Your task to perform on an android device: choose inbox layout in the gmail app Image 0: 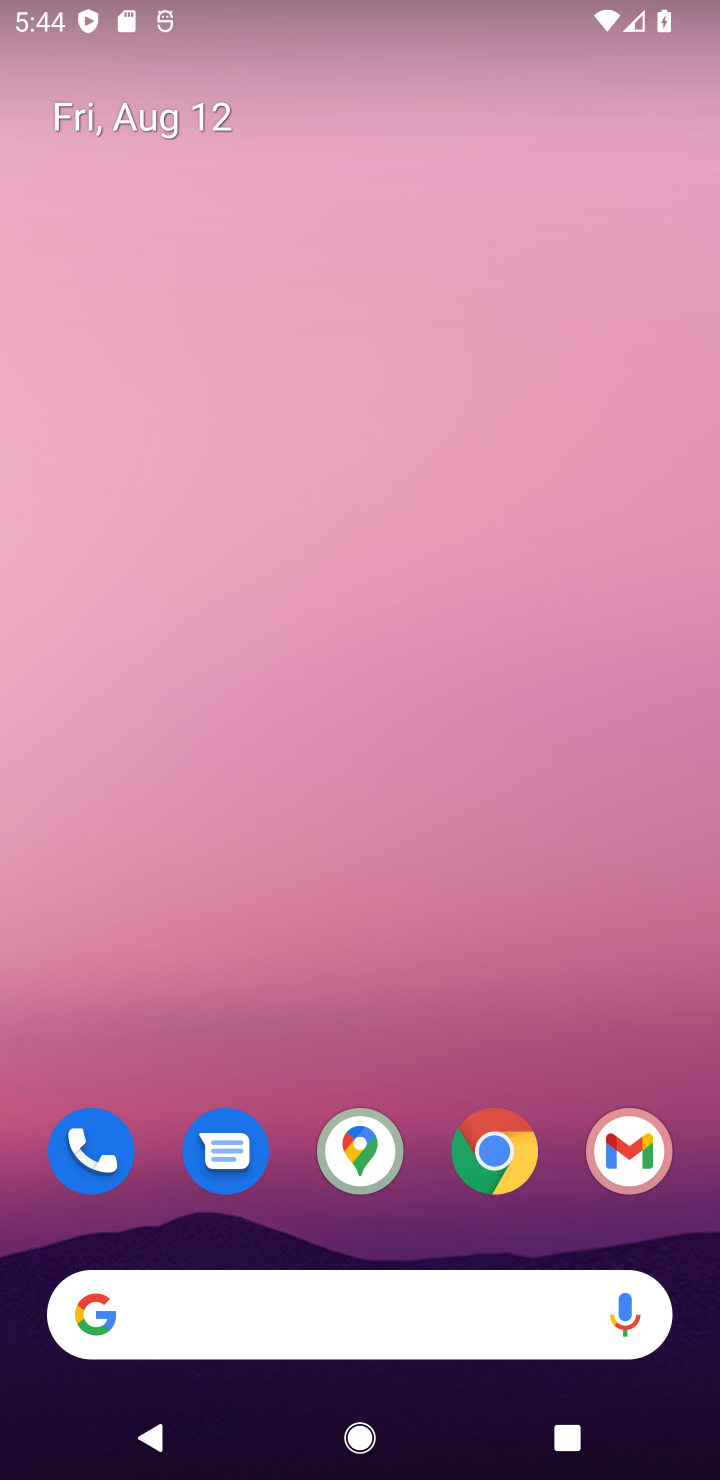
Step 0: drag from (429, 1207) to (483, 1)
Your task to perform on an android device: choose inbox layout in the gmail app Image 1: 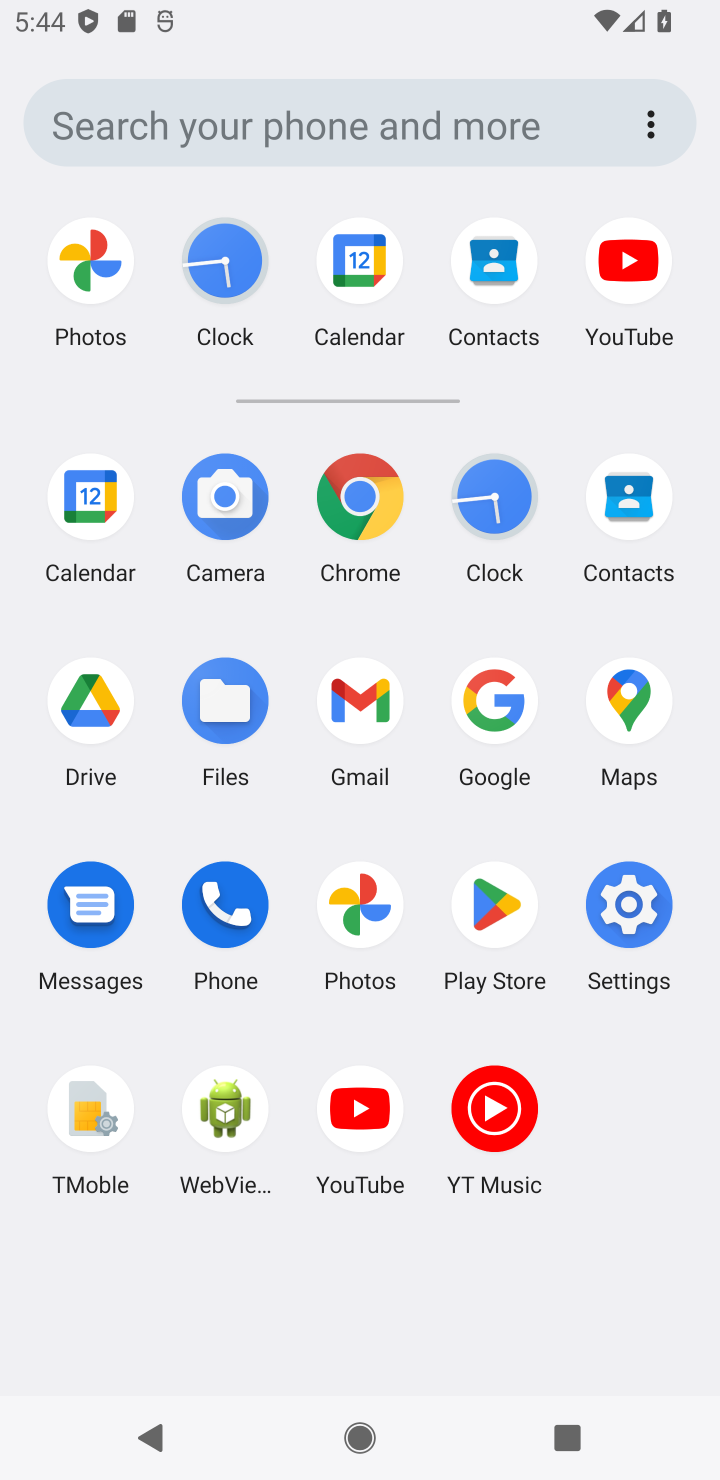
Step 1: click (381, 710)
Your task to perform on an android device: choose inbox layout in the gmail app Image 2: 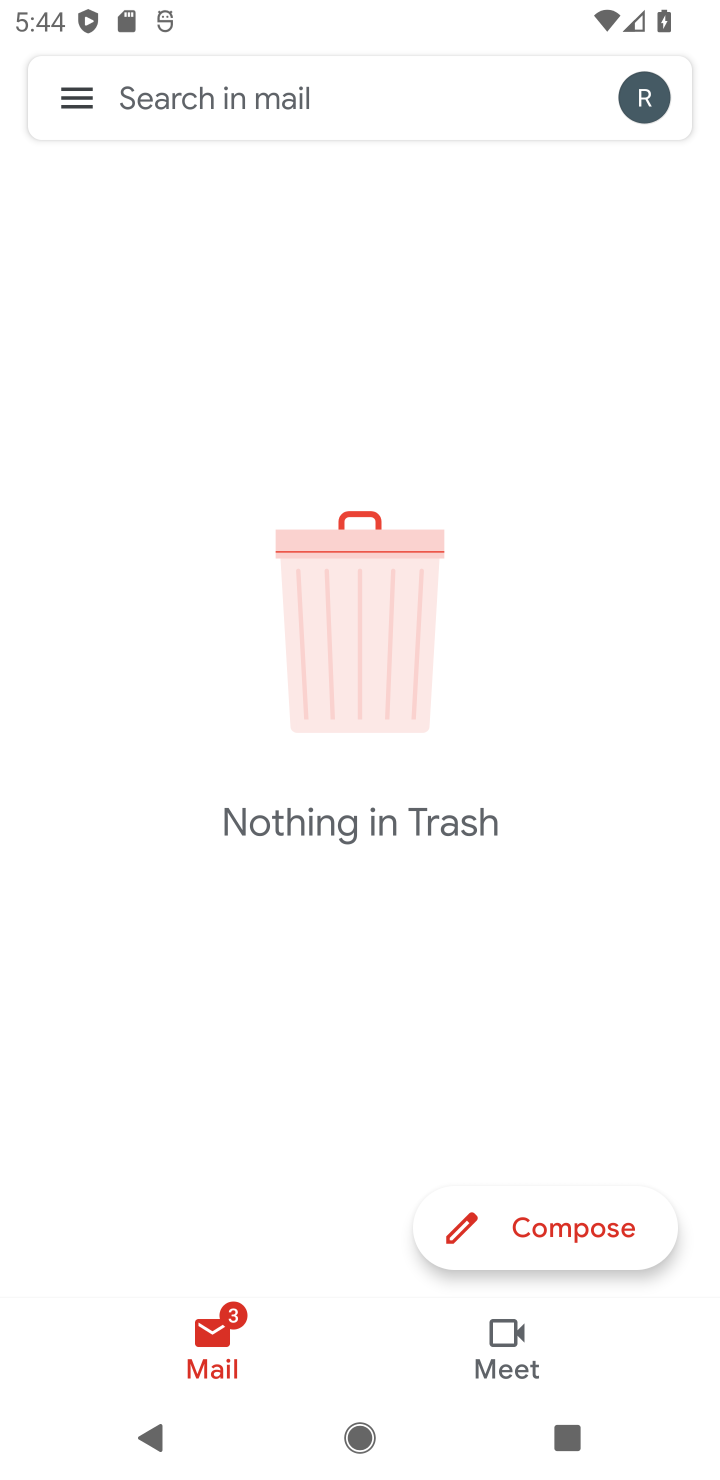
Step 2: click (88, 111)
Your task to perform on an android device: choose inbox layout in the gmail app Image 3: 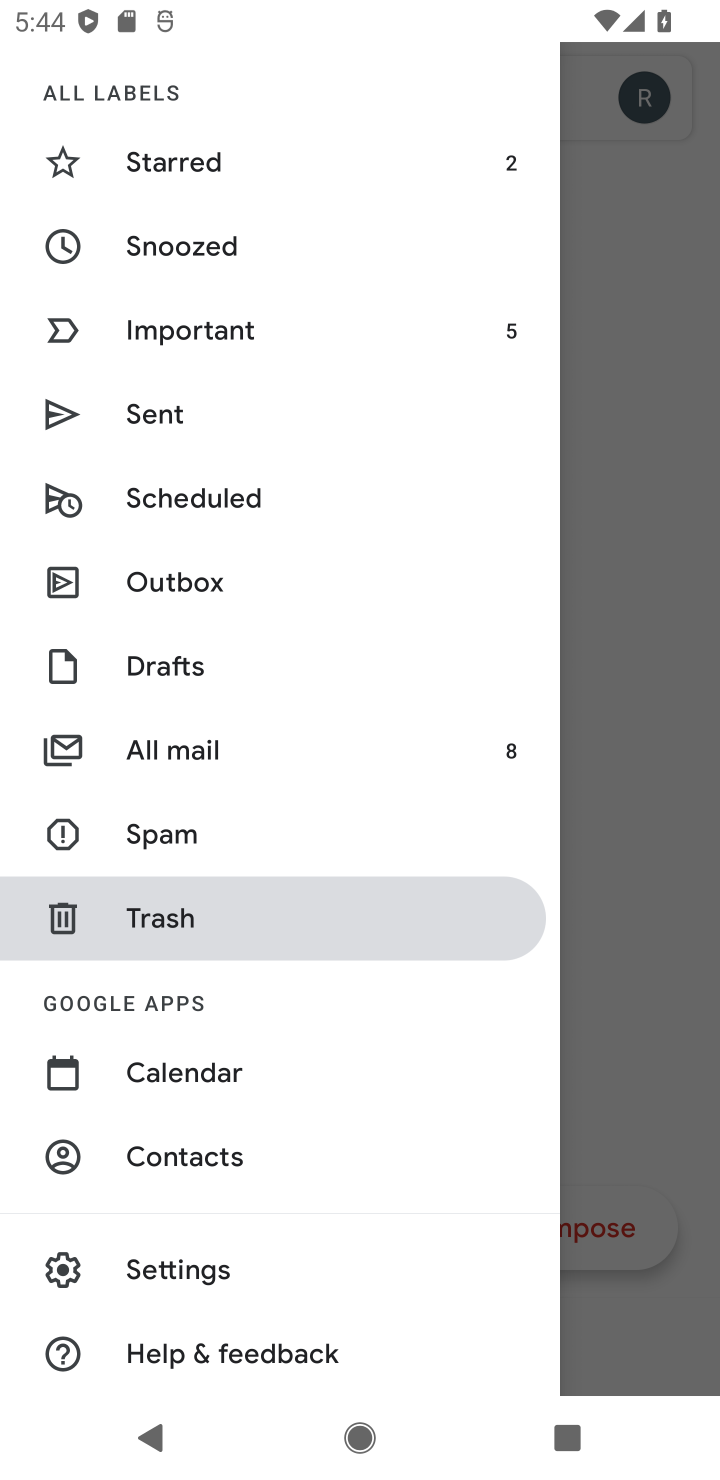
Step 3: click (216, 1283)
Your task to perform on an android device: choose inbox layout in the gmail app Image 4: 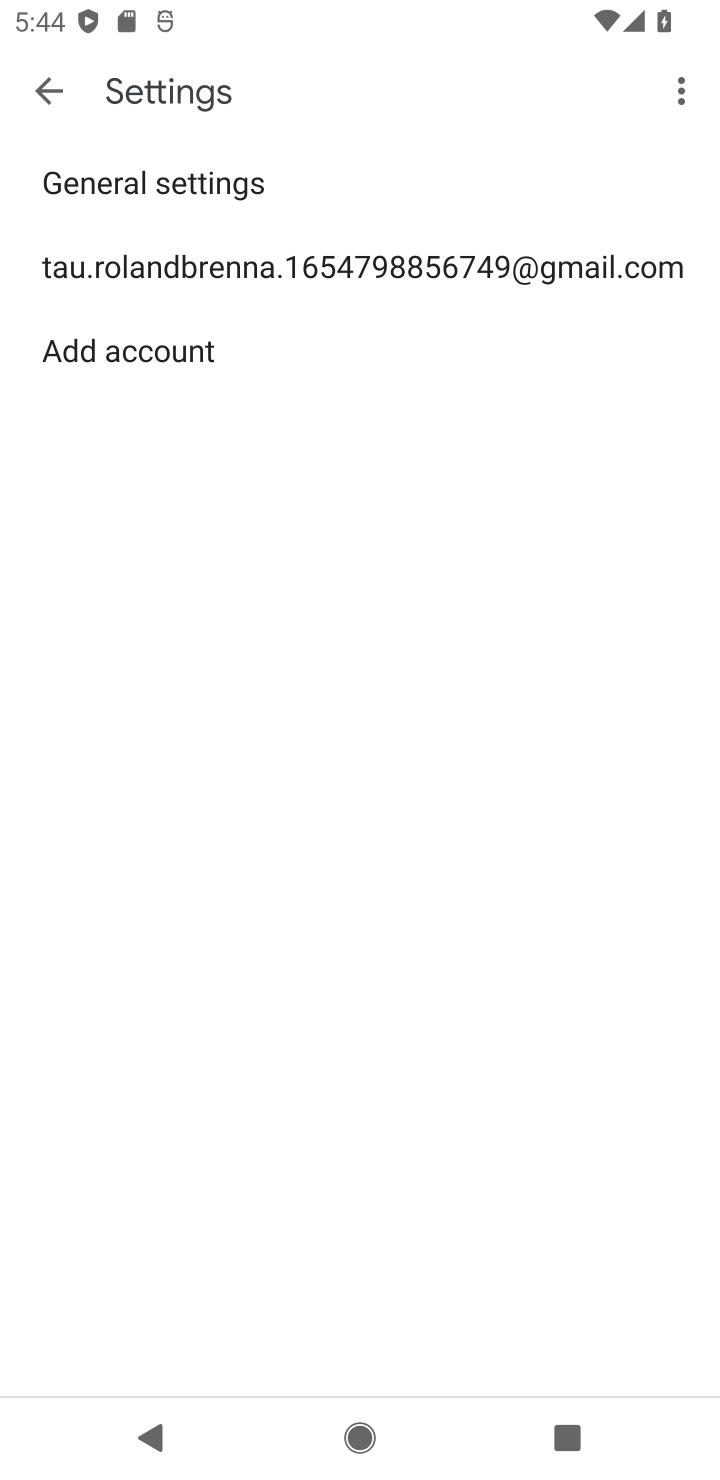
Step 4: click (414, 266)
Your task to perform on an android device: choose inbox layout in the gmail app Image 5: 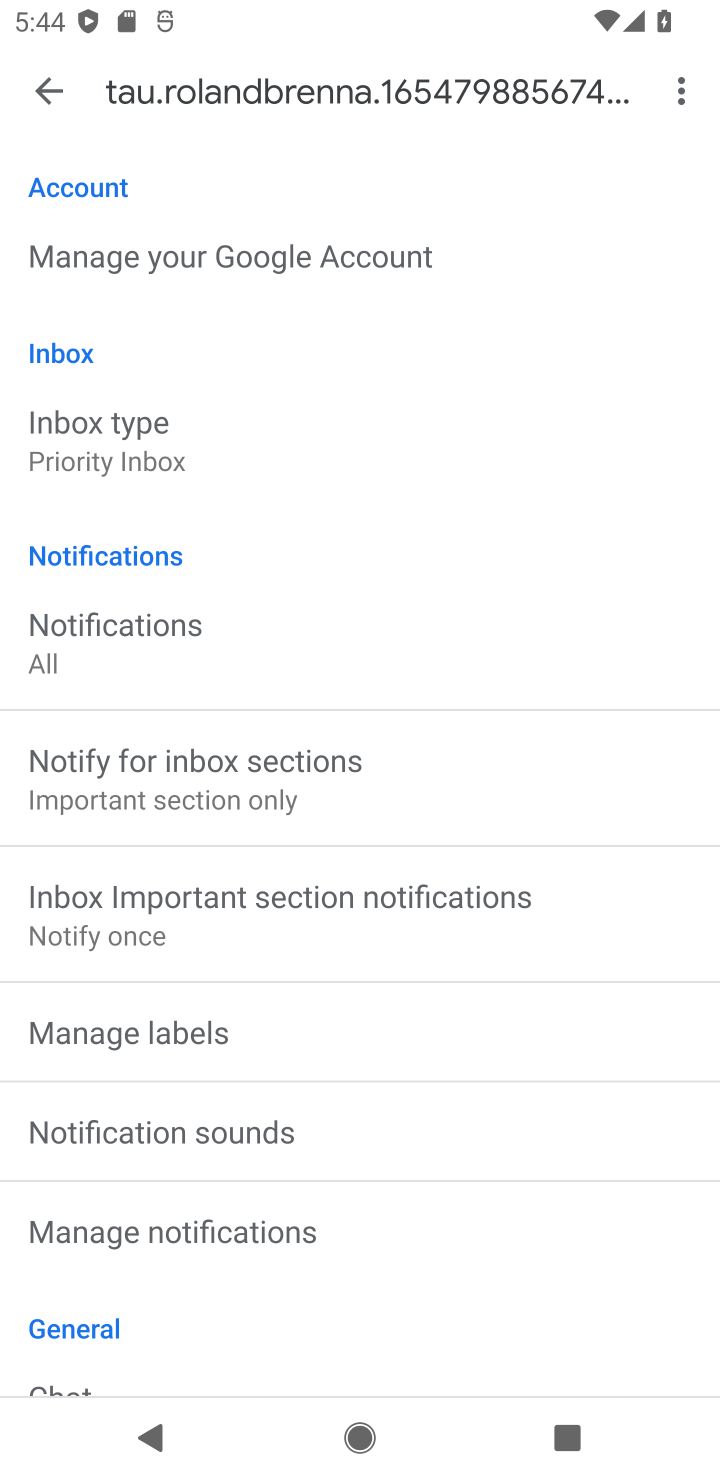
Step 5: click (131, 414)
Your task to perform on an android device: choose inbox layout in the gmail app Image 6: 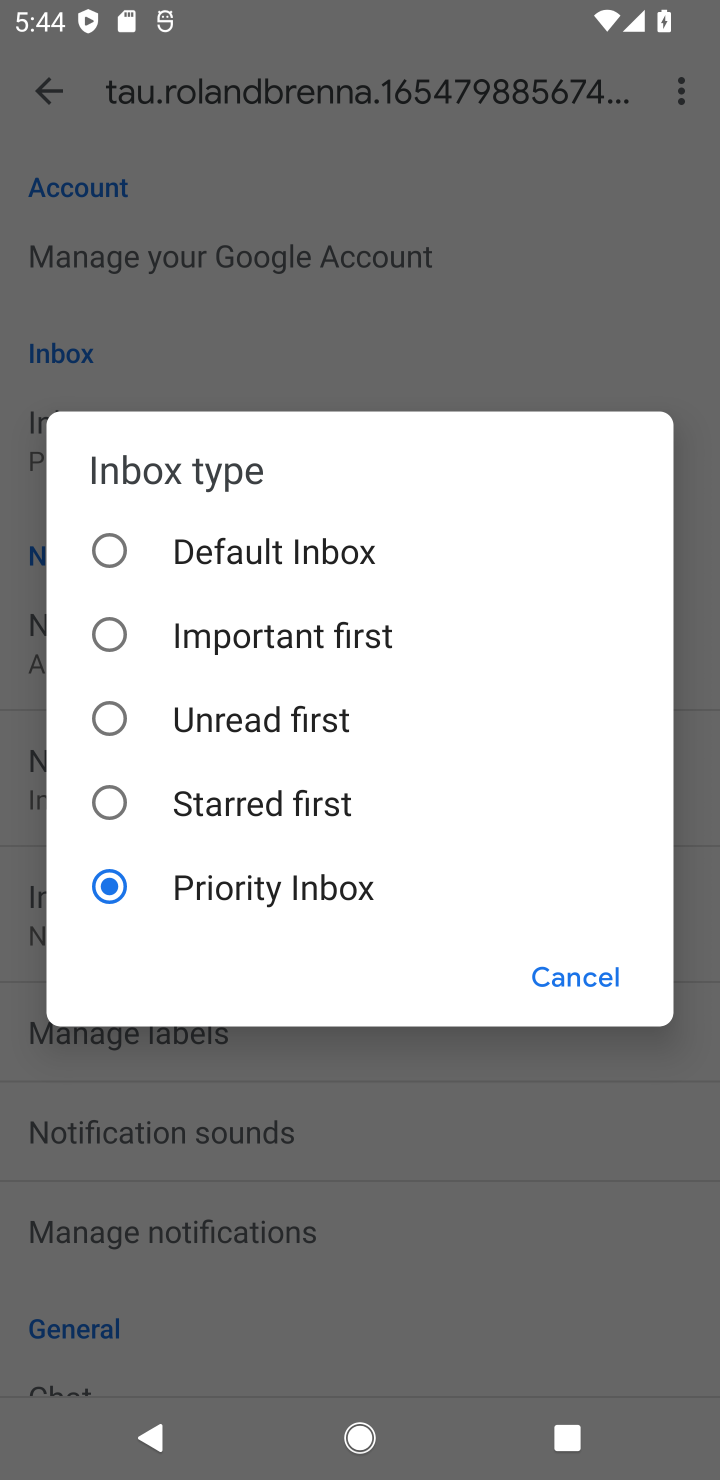
Step 6: task complete